Your task to perform on an android device: Open Amazon Image 0: 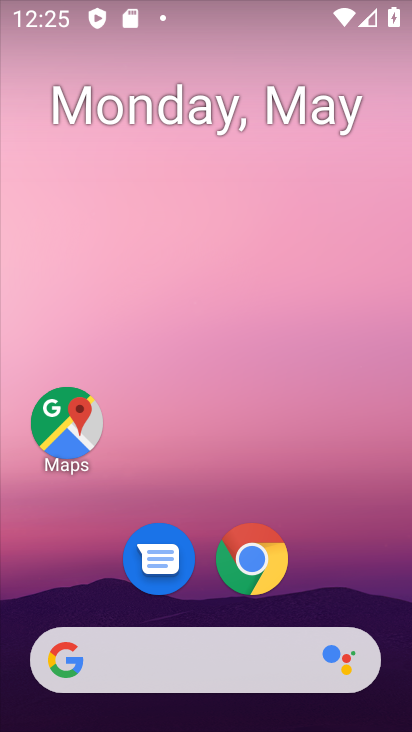
Step 0: drag from (145, 641) to (245, 15)
Your task to perform on an android device: Open Amazon Image 1: 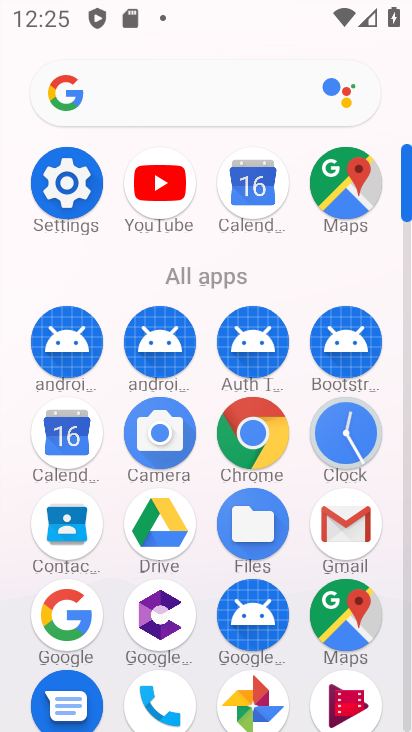
Step 1: click (253, 453)
Your task to perform on an android device: Open Amazon Image 2: 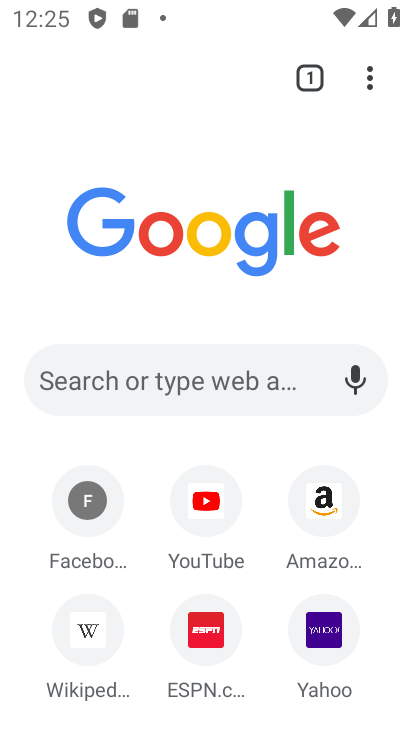
Step 2: click (322, 497)
Your task to perform on an android device: Open Amazon Image 3: 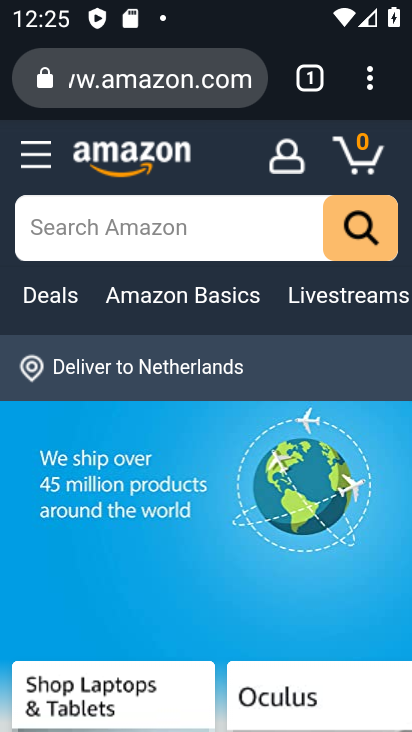
Step 3: task complete